Your task to perform on an android device: turn off notifications in google photos Image 0: 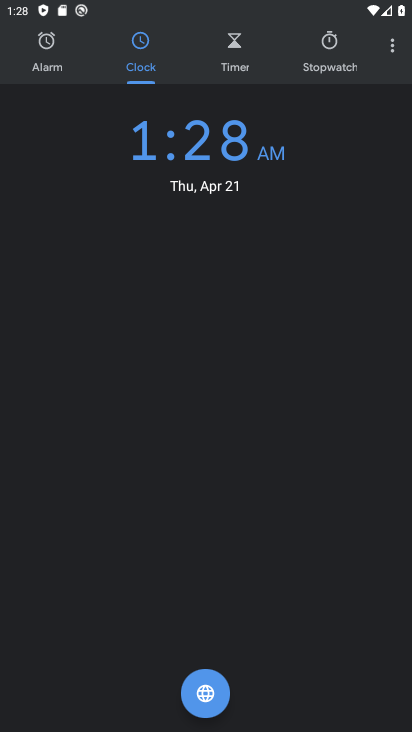
Step 0: press home button
Your task to perform on an android device: turn off notifications in google photos Image 1: 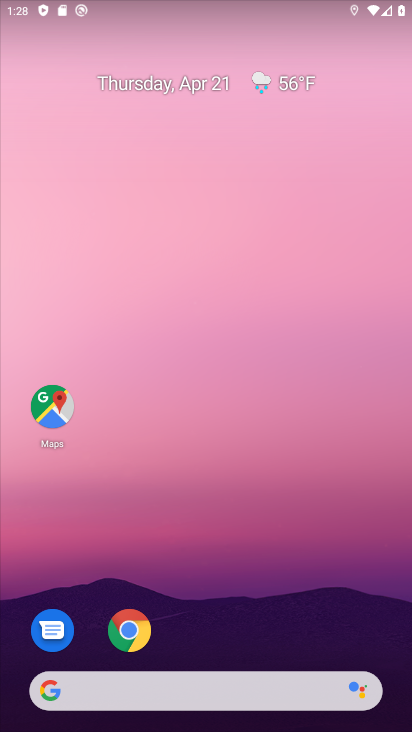
Step 1: drag from (245, 311) to (238, 67)
Your task to perform on an android device: turn off notifications in google photos Image 2: 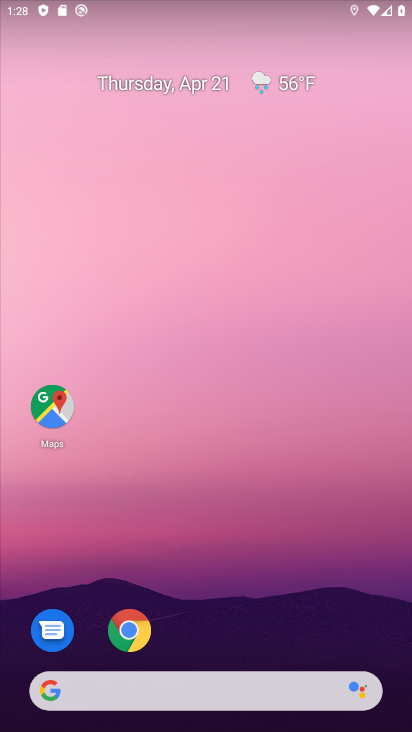
Step 2: drag from (290, 651) to (220, 58)
Your task to perform on an android device: turn off notifications in google photos Image 3: 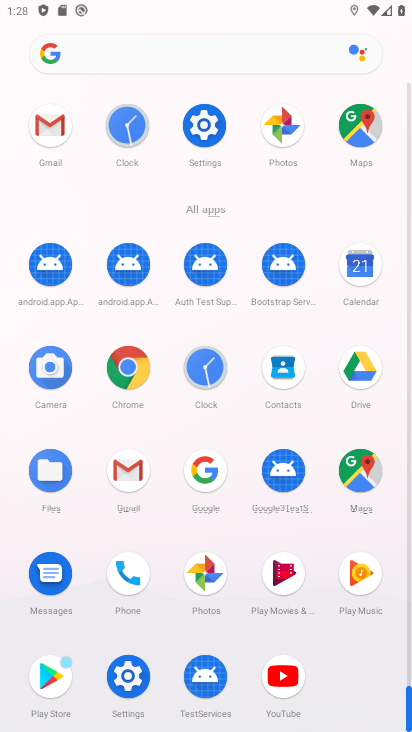
Step 3: click (278, 182)
Your task to perform on an android device: turn off notifications in google photos Image 4: 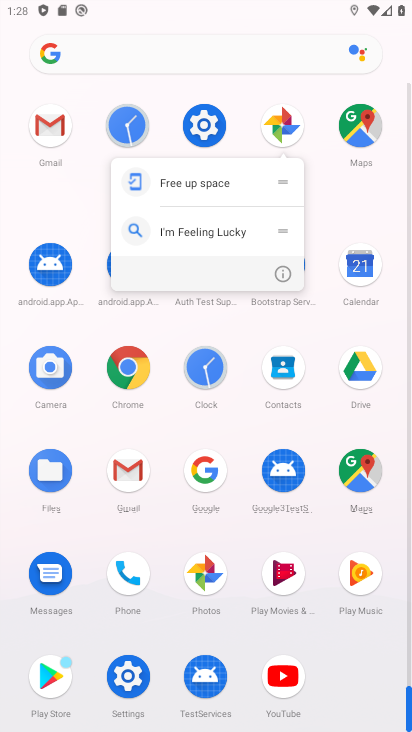
Step 4: click (280, 277)
Your task to perform on an android device: turn off notifications in google photos Image 5: 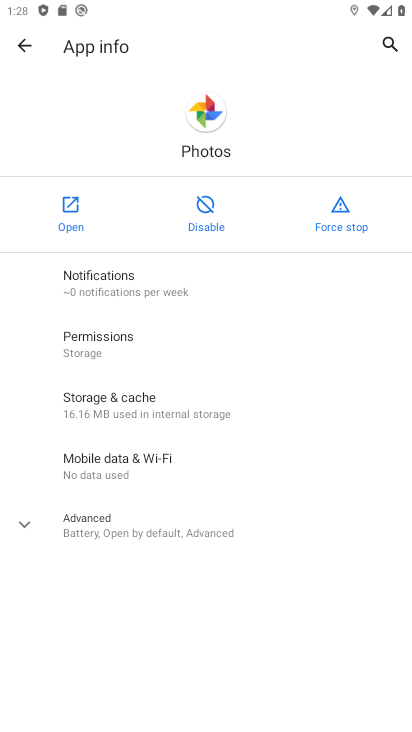
Step 5: click (151, 284)
Your task to perform on an android device: turn off notifications in google photos Image 6: 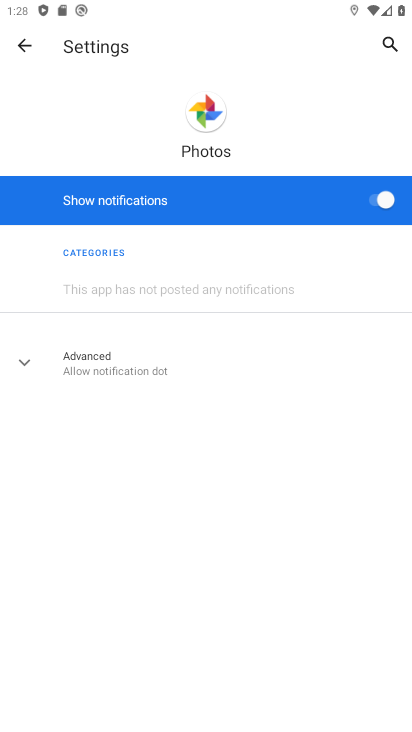
Step 6: click (396, 201)
Your task to perform on an android device: turn off notifications in google photos Image 7: 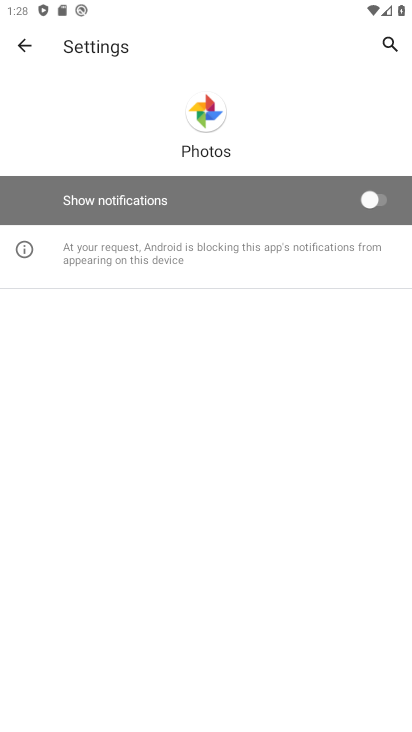
Step 7: task complete